Your task to perform on an android device: add a contact Image 0: 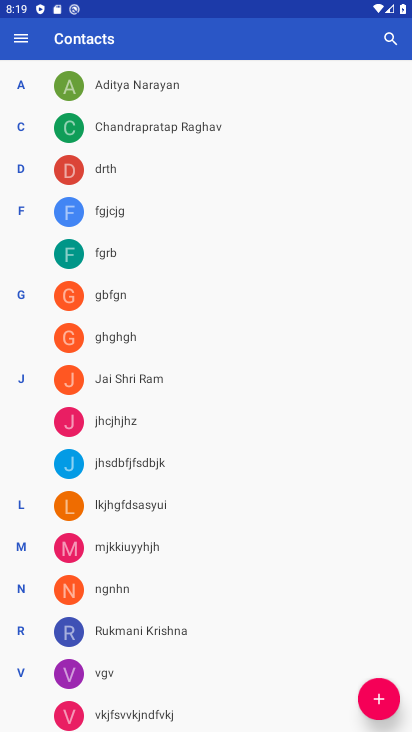
Step 0: click (378, 695)
Your task to perform on an android device: add a contact Image 1: 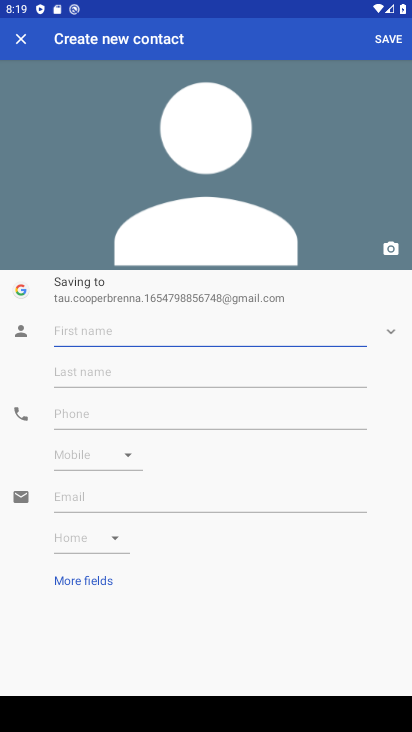
Step 1: type "unybtvrc"
Your task to perform on an android device: add a contact Image 2: 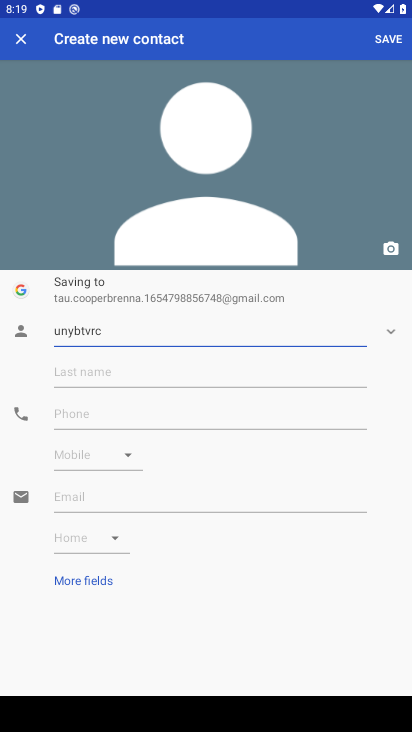
Step 2: click (183, 416)
Your task to perform on an android device: add a contact Image 3: 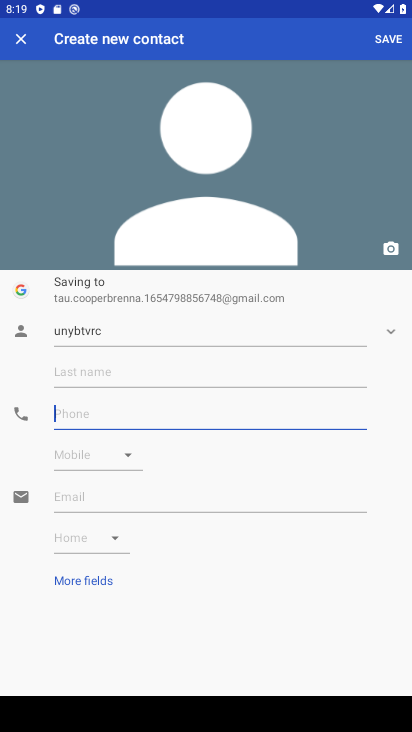
Step 3: type "876543"
Your task to perform on an android device: add a contact Image 4: 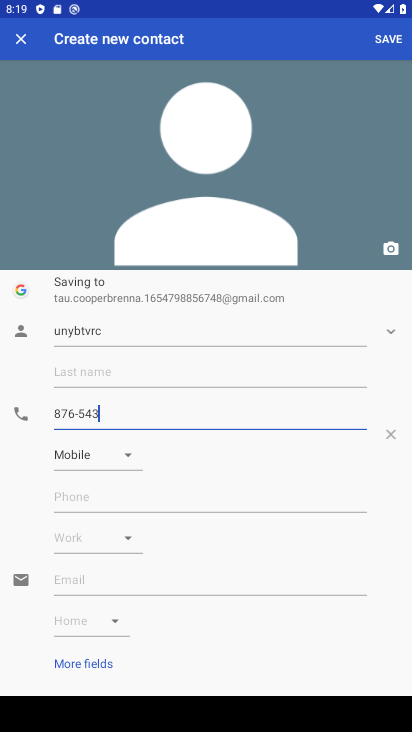
Step 4: click (387, 37)
Your task to perform on an android device: add a contact Image 5: 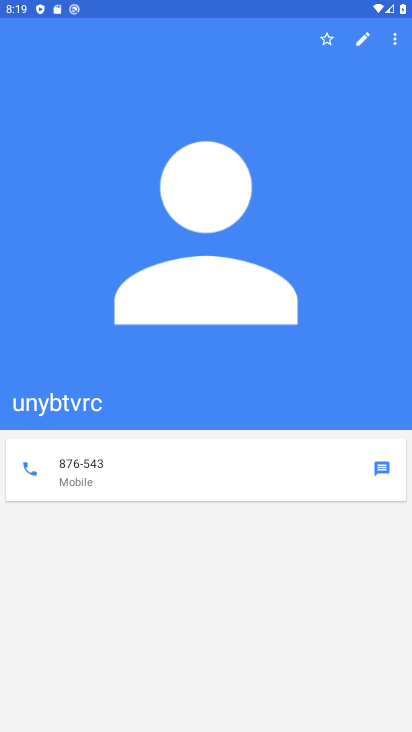
Step 5: task complete